Your task to perform on an android device: check the backup settings in the google photos Image 0: 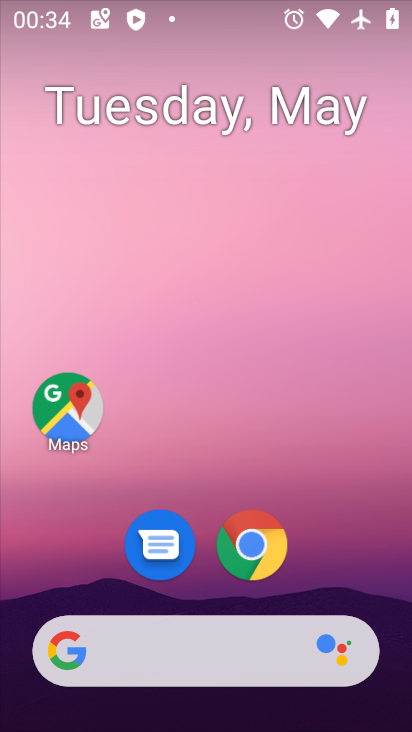
Step 0: drag from (297, 570) to (311, 45)
Your task to perform on an android device: check the backup settings in the google photos Image 1: 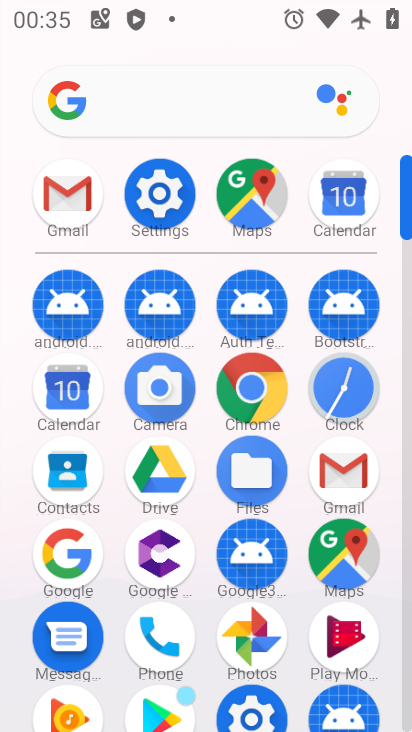
Step 1: click (248, 648)
Your task to perform on an android device: check the backup settings in the google photos Image 2: 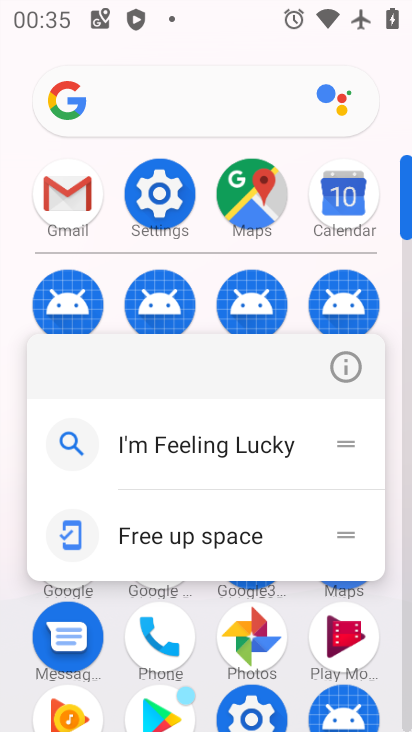
Step 2: click (248, 647)
Your task to perform on an android device: check the backup settings in the google photos Image 3: 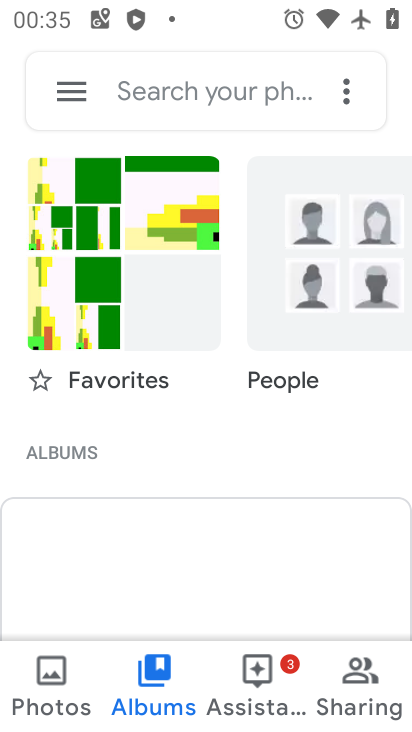
Step 3: click (75, 93)
Your task to perform on an android device: check the backup settings in the google photos Image 4: 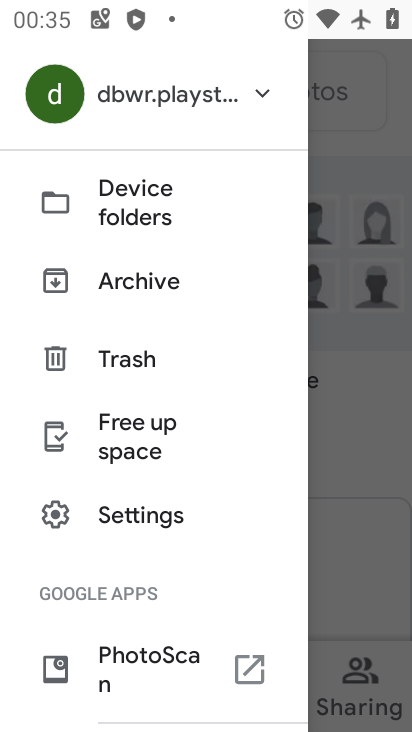
Step 4: click (139, 514)
Your task to perform on an android device: check the backup settings in the google photos Image 5: 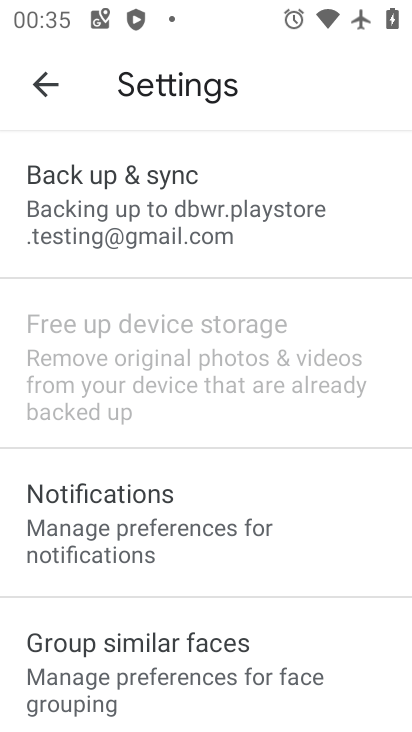
Step 5: click (154, 237)
Your task to perform on an android device: check the backup settings in the google photos Image 6: 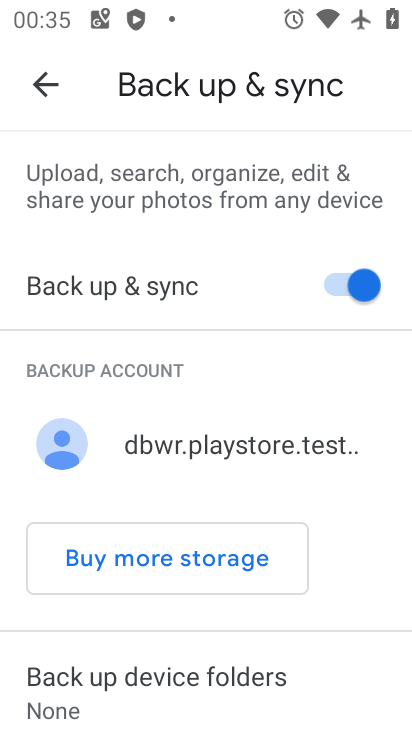
Step 6: task complete